Your task to perform on an android device: Open settings Image 0: 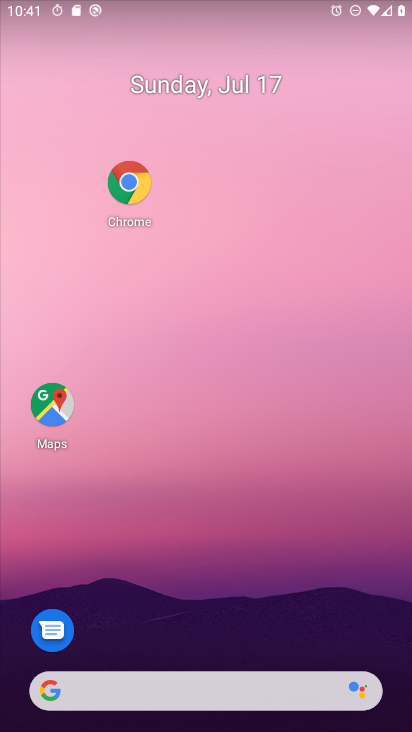
Step 0: click (293, 223)
Your task to perform on an android device: Open settings Image 1: 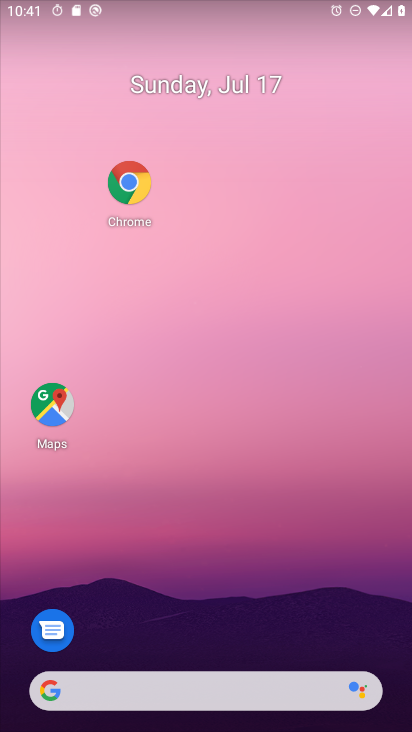
Step 1: drag from (315, 620) to (274, 169)
Your task to perform on an android device: Open settings Image 2: 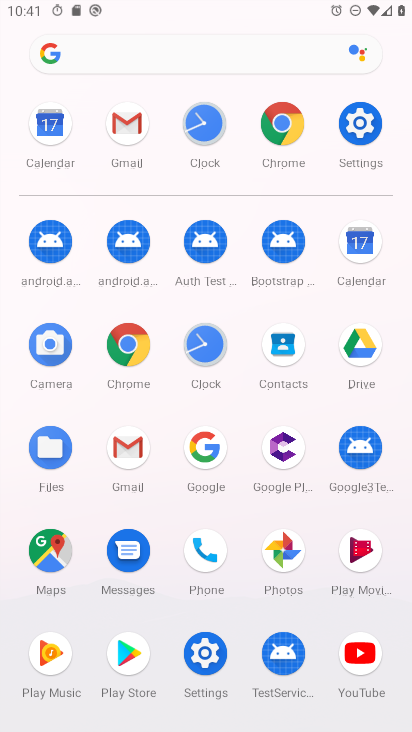
Step 2: click (358, 115)
Your task to perform on an android device: Open settings Image 3: 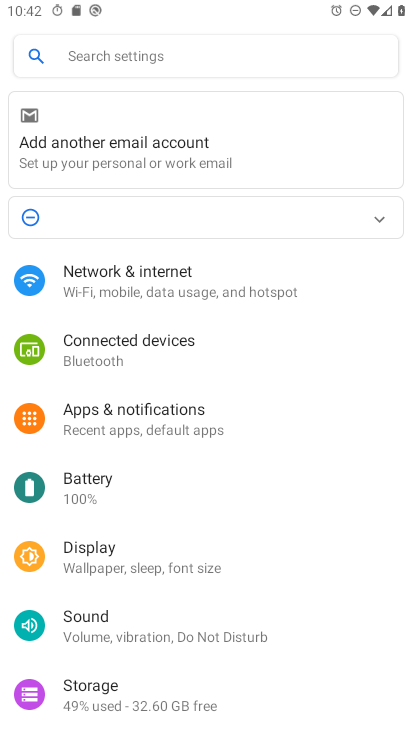
Step 3: task complete